Your task to perform on an android device: Open my contact list Image 0: 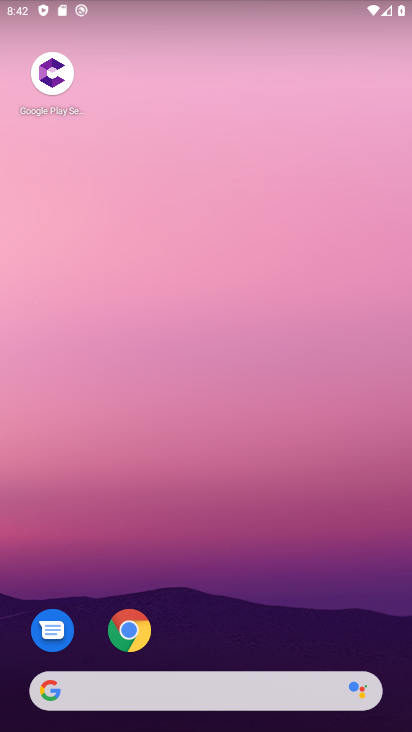
Step 0: drag from (219, 615) to (231, 67)
Your task to perform on an android device: Open my contact list Image 1: 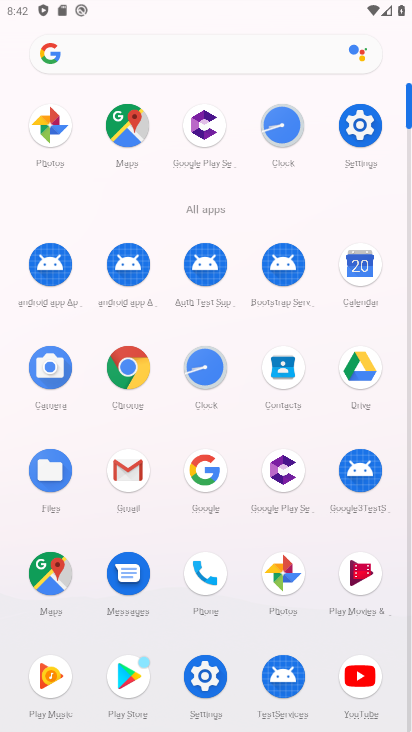
Step 1: click (284, 371)
Your task to perform on an android device: Open my contact list Image 2: 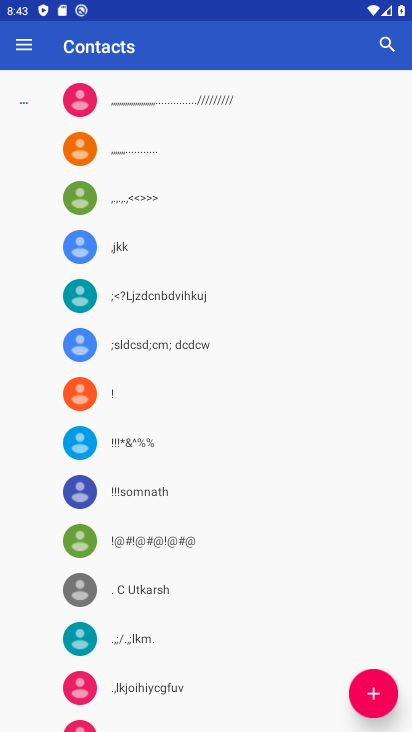
Step 2: task complete